Your task to perform on an android device: Go to Yahoo.com Image 0: 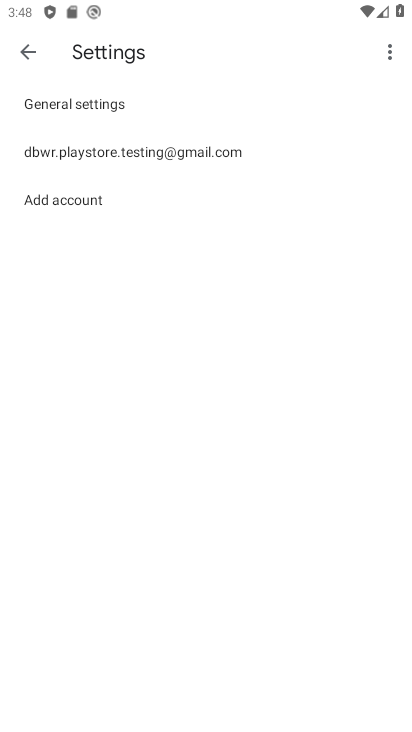
Step 0: press home button
Your task to perform on an android device: Go to Yahoo.com Image 1: 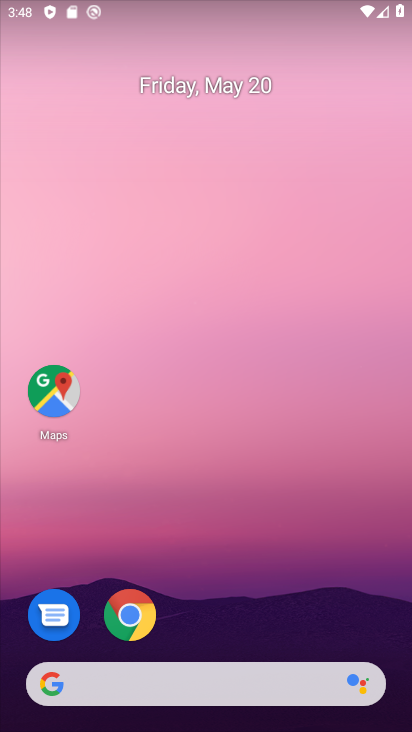
Step 1: drag from (219, 539) to (288, 159)
Your task to perform on an android device: Go to Yahoo.com Image 2: 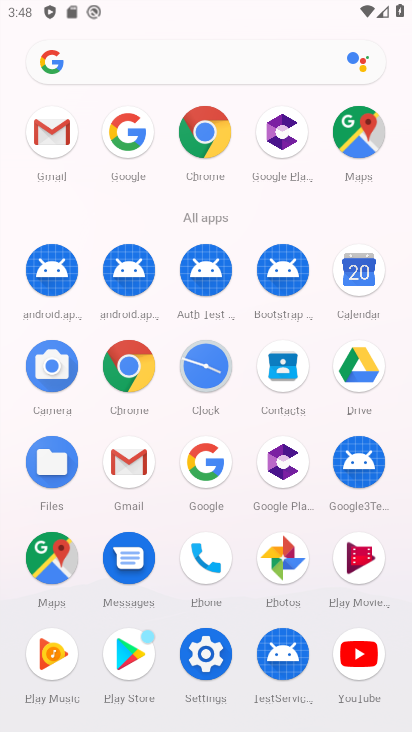
Step 2: click (222, 166)
Your task to perform on an android device: Go to Yahoo.com Image 3: 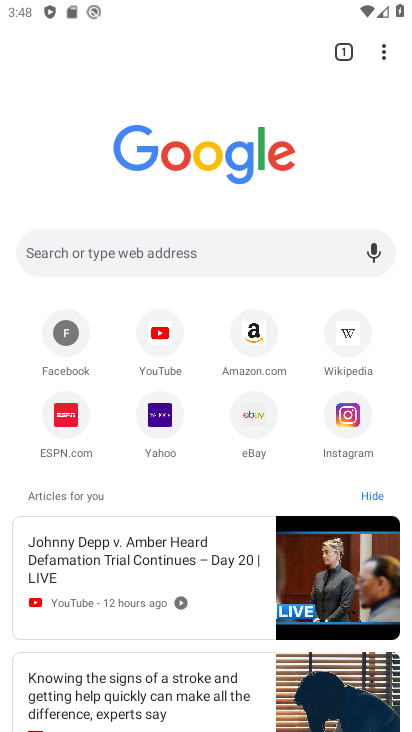
Step 3: click (169, 265)
Your task to perform on an android device: Go to Yahoo.com Image 4: 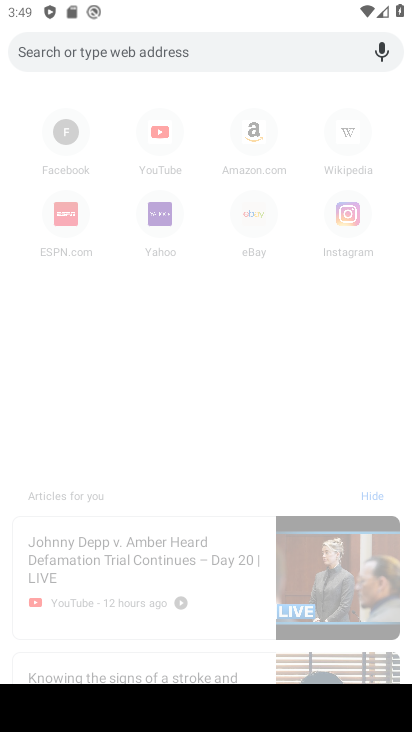
Step 4: type "yahoo"
Your task to perform on an android device: Go to Yahoo.com Image 5: 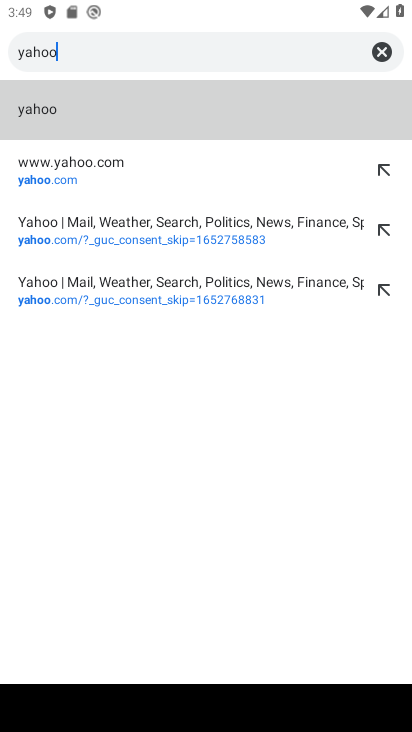
Step 5: click (245, 159)
Your task to perform on an android device: Go to Yahoo.com Image 6: 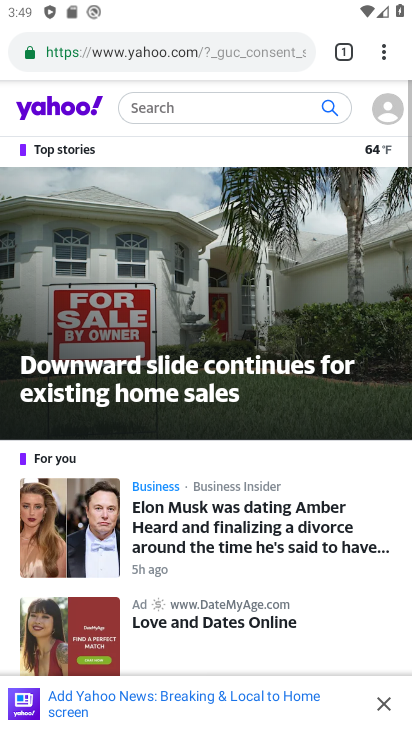
Step 6: task complete